Your task to perform on an android device: Toggle the flashlight Image 0: 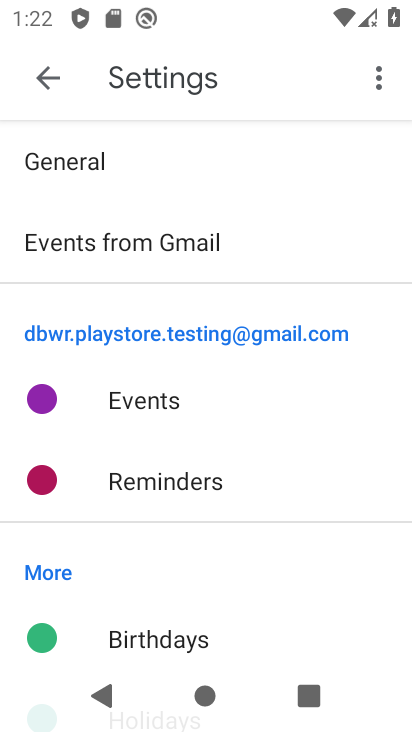
Step 0: press home button
Your task to perform on an android device: Toggle the flashlight Image 1: 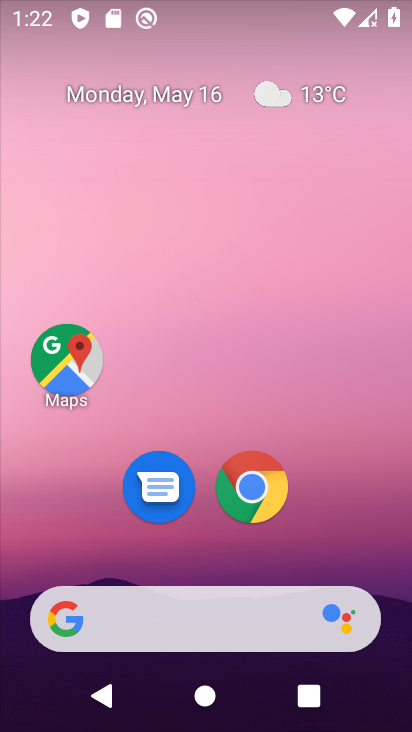
Step 1: drag from (383, 246) to (380, 212)
Your task to perform on an android device: Toggle the flashlight Image 2: 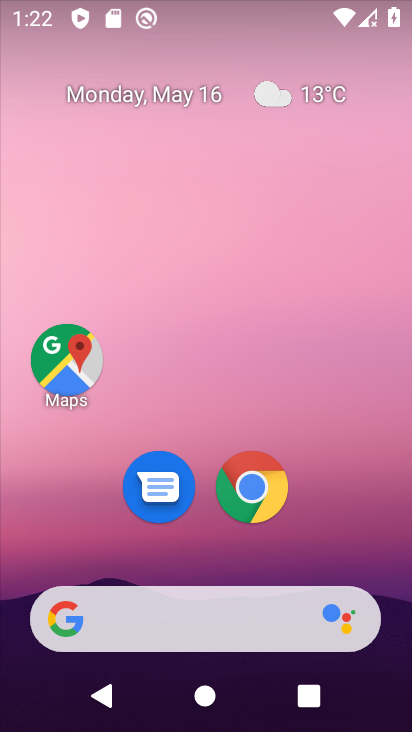
Step 2: drag from (402, 661) to (387, 139)
Your task to perform on an android device: Toggle the flashlight Image 3: 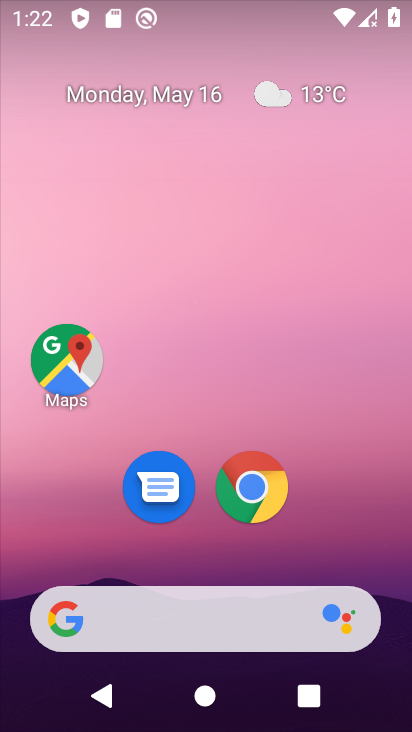
Step 3: drag from (380, 544) to (338, 171)
Your task to perform on an android device: Toggle the flashlight Image 4: 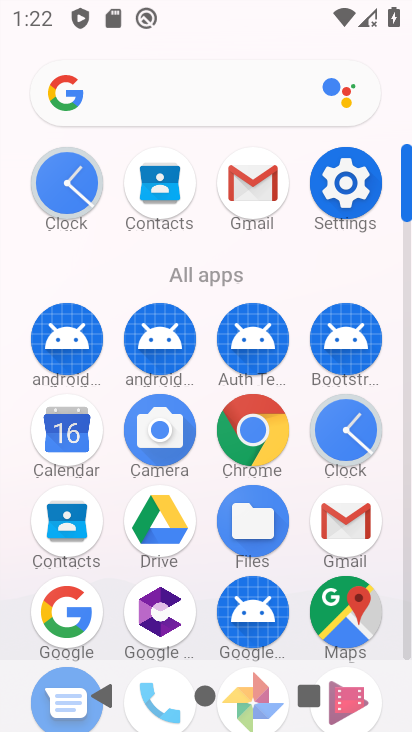
Step 4: click (329, 194)
Your task to perform on an android device: Toggle the flashlight Image 5: 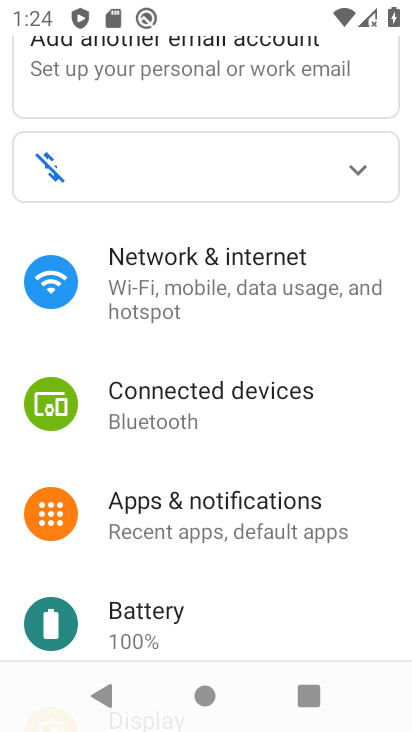
Step 5: click (192, 504)
Your task to perform on an android device: Toggle the flashlight Image 6: 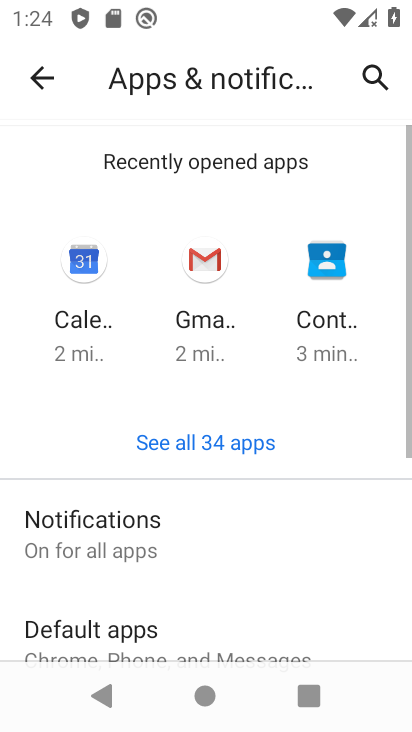
Step 6: task complete